Your task to perform on an android device: Play the last video I watched on Youtube Image 0: 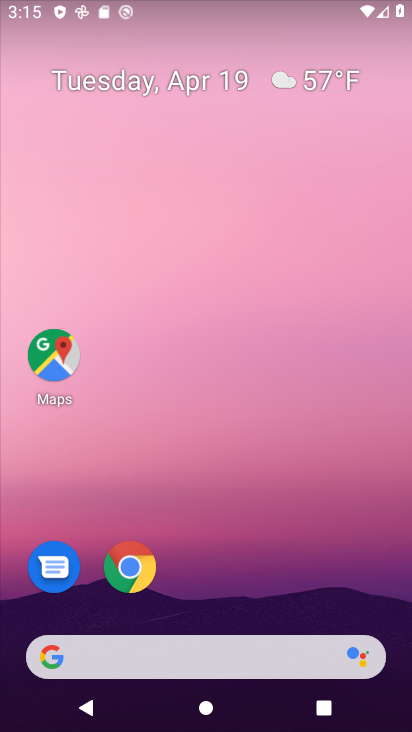
Step 0: drag from (372, 594) to (371, 99)
Your task to perform on an android device: Play the last video I watched on Youtube Image 1: 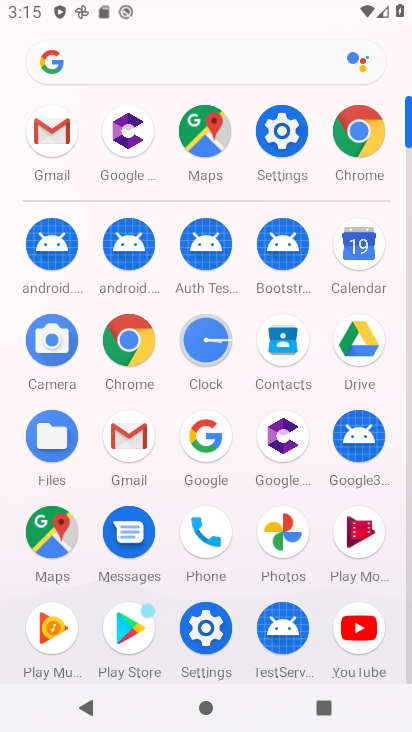
Step 1: click (363, 631)
Your task to perform on an android device: Play the last video I watched on Youtube Image 2: 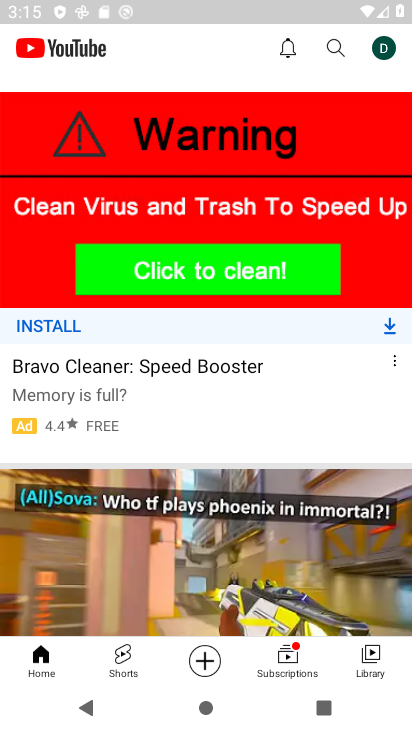
Step 2: click (366, 662)
Your task to perform on an android device: Play the last video I watched on Youtube Image 3: 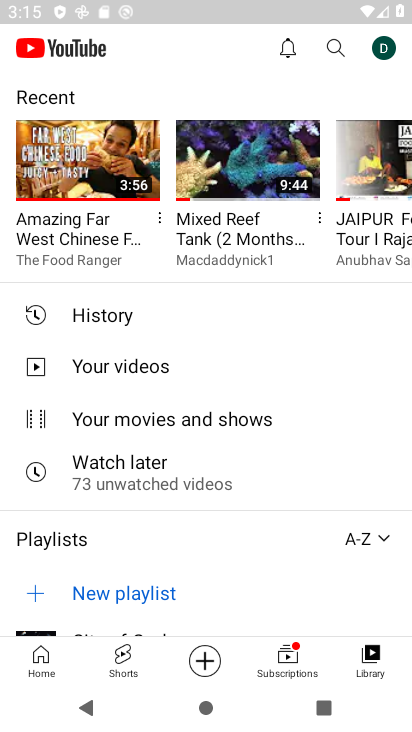
Step 3: click (88, 170)
Your task to perform on an android device: Play the last video I watched on Youtube Image 4: 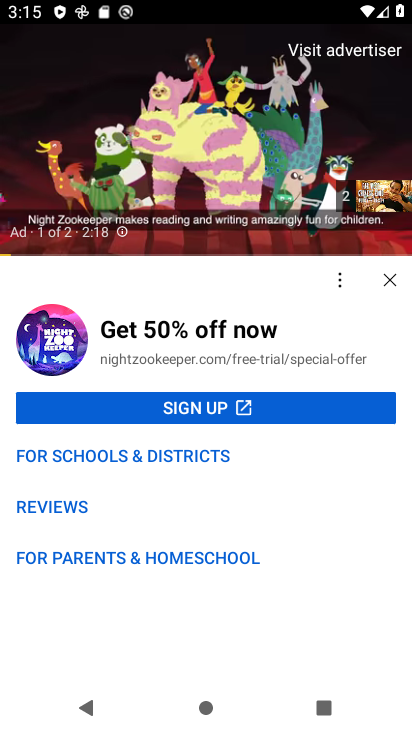
Step 4: task complete